Your task to perform on an android device: check out phone information Image 0: 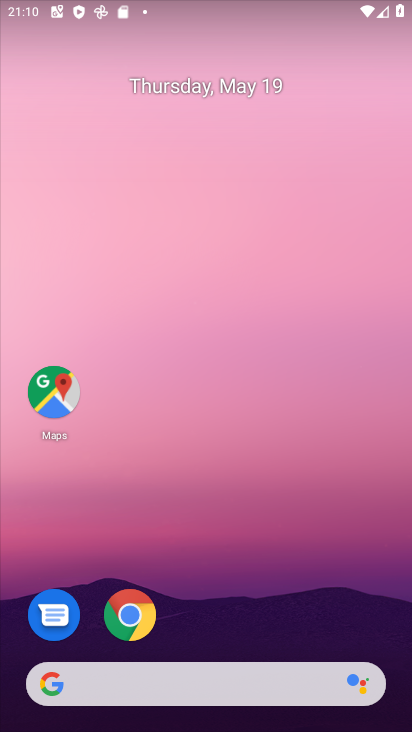
Step 0: drag from (246, 575) to (197, 126)
Your task to perform on an android device: check out phone information Image 1: 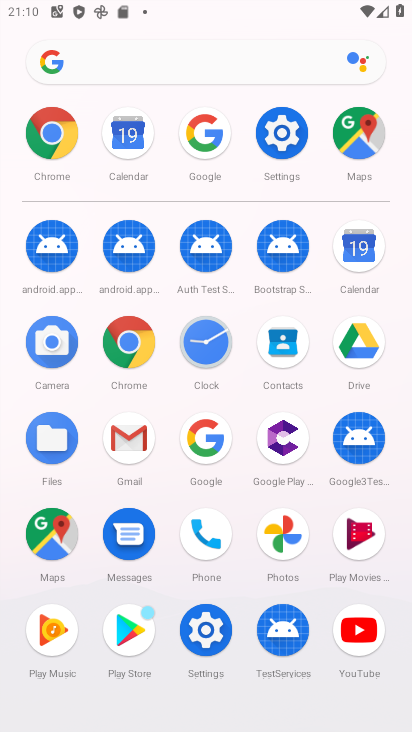
Step 1: click (279, 145)
Your task to perform on an android device: check out phone information Image 2: 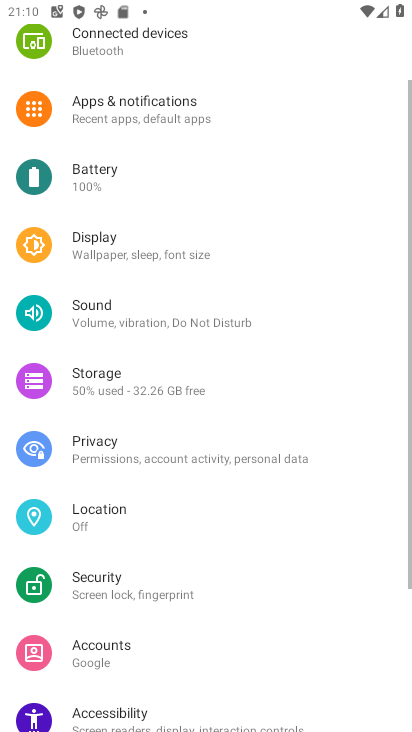
Step 2: drag from (233, 533) to (242, 43)
Your task to perform on an android device: check out phone information Image 3: 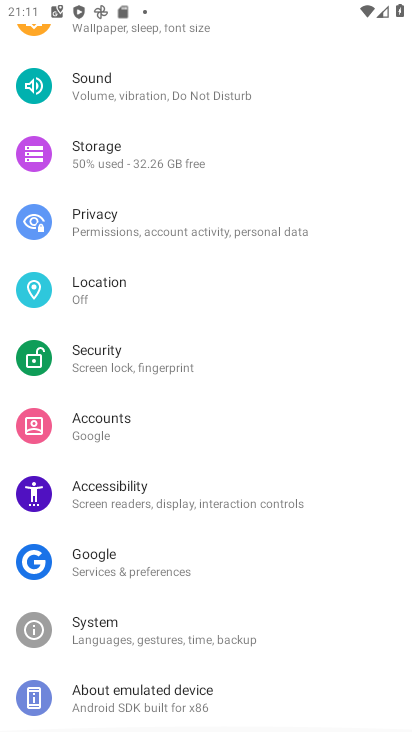
Step 3: drag from (270, 593) to (232, 371)
Your task to perform on an android device: check out phone information Image 4: 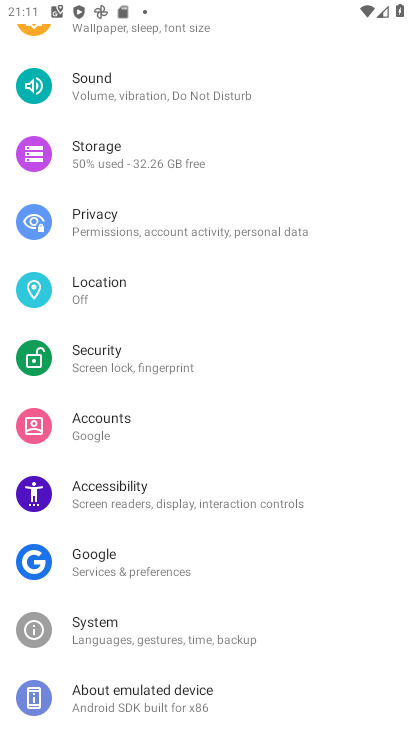
Step 4: click (168, 688)
Your task to perform on an android device: check out phone information Image 5: 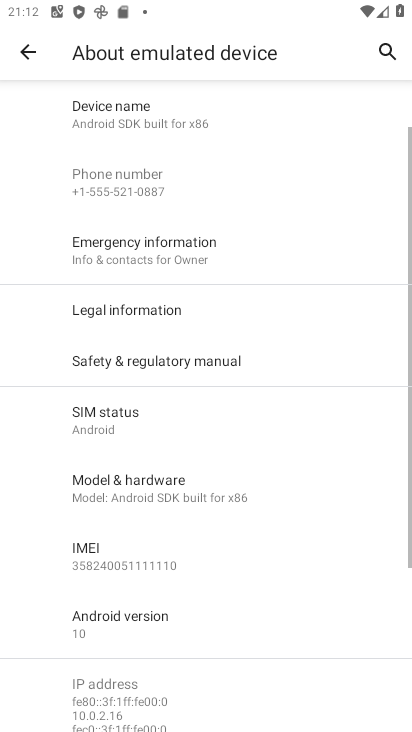
Step 5: task complete